Your task to perform on an android device: Go to Yahoo.com Image 0: 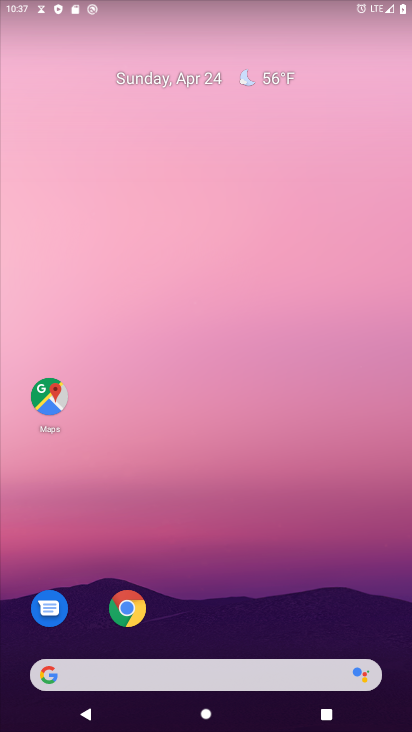
Step 0: drag from (200, 650) to (164, 14)
Your task to perform on an android device: Go to Yahoo.com Image 1: 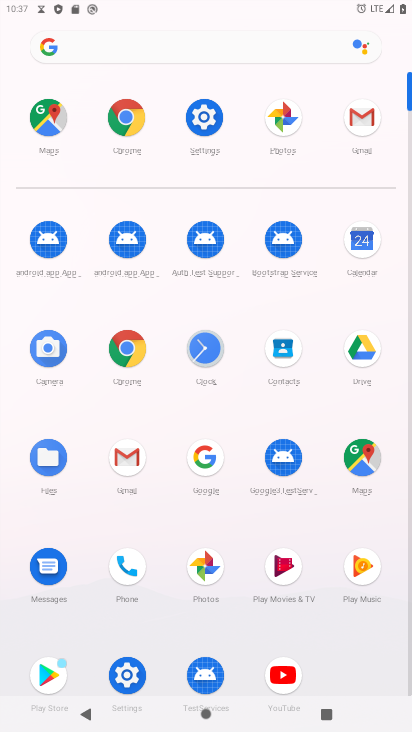
Step 1: click (124, 344)
Your task to perform on an android device: Go to Yahoo.com Image 2: 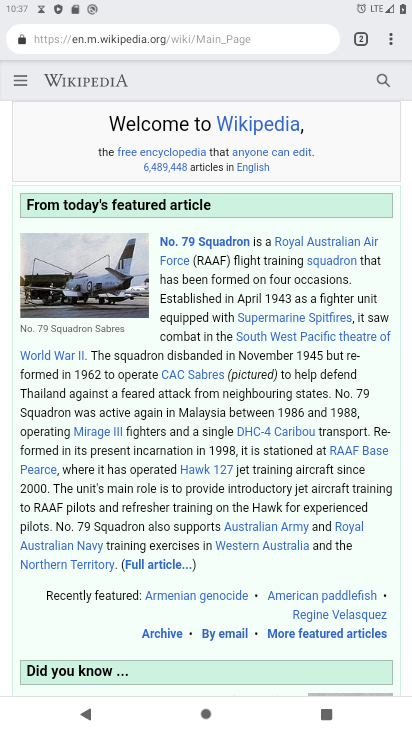
Step 2: click (360, 33)
Your task to perform on an android device: Go to Yahoo.com Image 3: 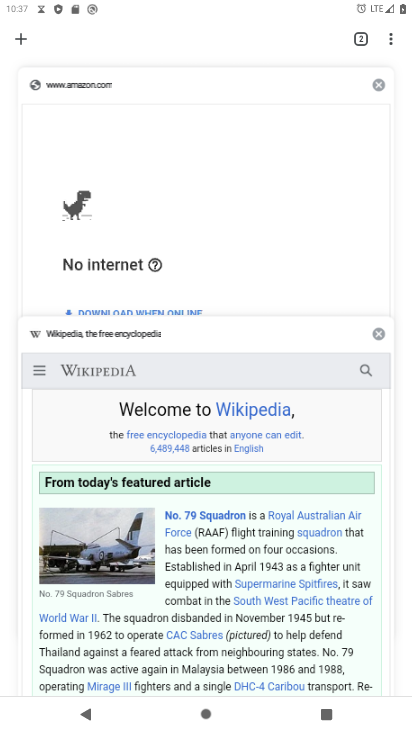
Step 3: click (22, 34)
Your task to perform on an android device: Go to Yahoo.com Image 4: 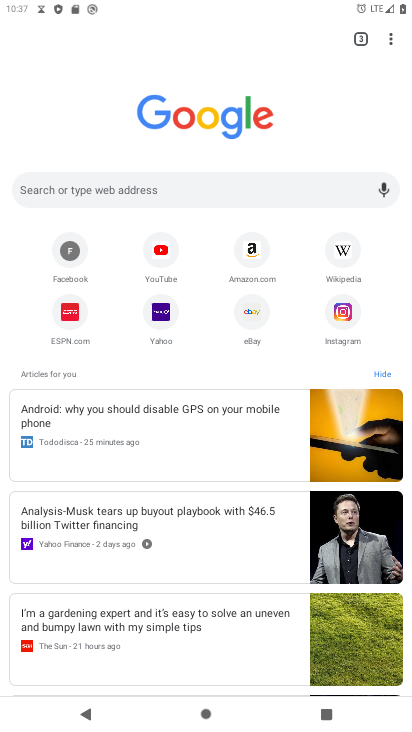
Step 4: click (161, 313)
Your task to perform on an android device: Go to Yahoo.com Image 5: 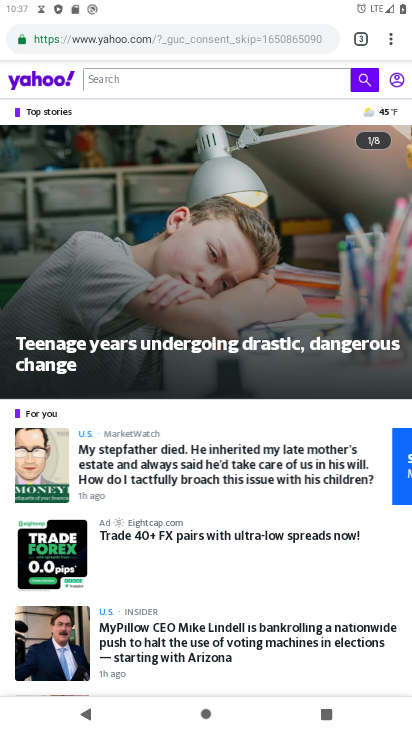
Step 5: task complete